Your task to perform on an android device: all mails in gmail Image 0: 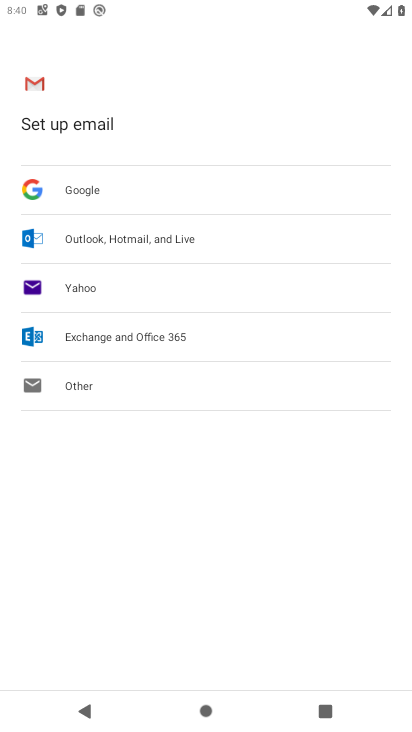
Step 0: press home button
Your task to perform on an android device: all mails in gmail Image 1: 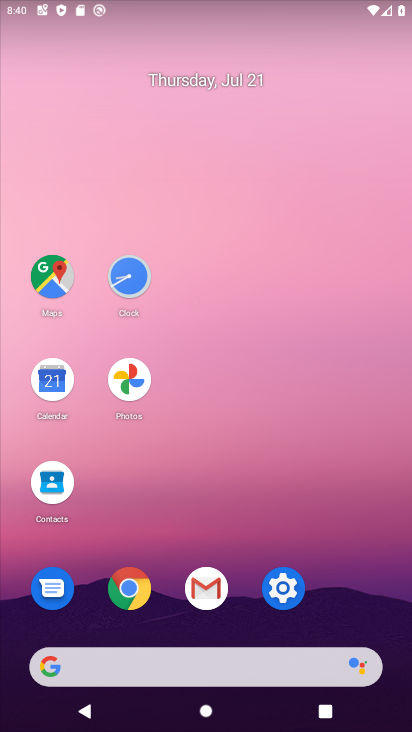
Step 1: click (204, 613)
Your task to perform on an android device: all mails in gmail Image 2: 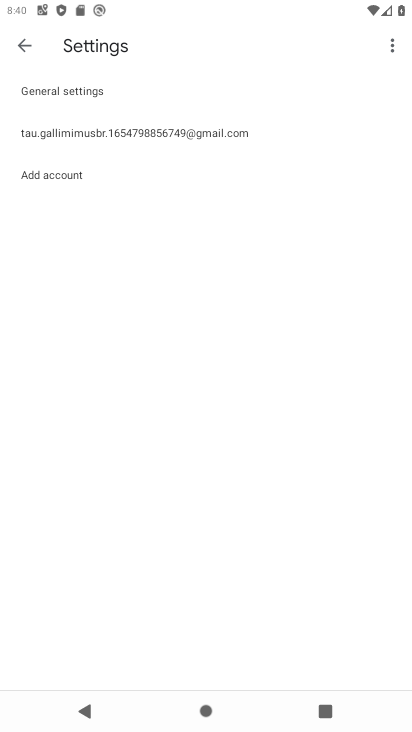
Step 2: click (16, 42)
Your task to perform on an android device: all mails in gmail Image 3: 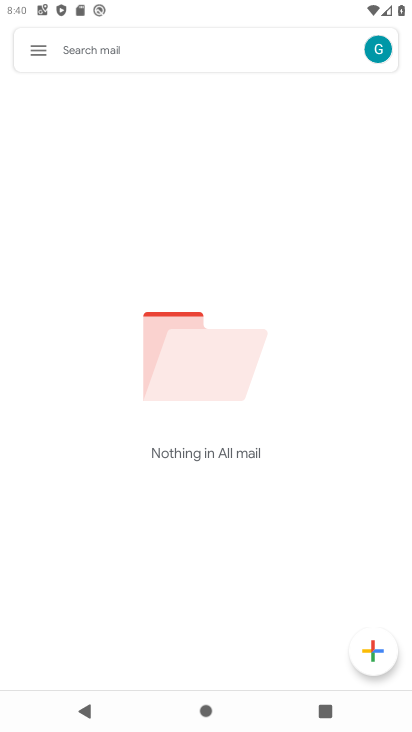
Step 3: click (38, 56)
Your task to perform on an android device: all mails in gmail Image 4: 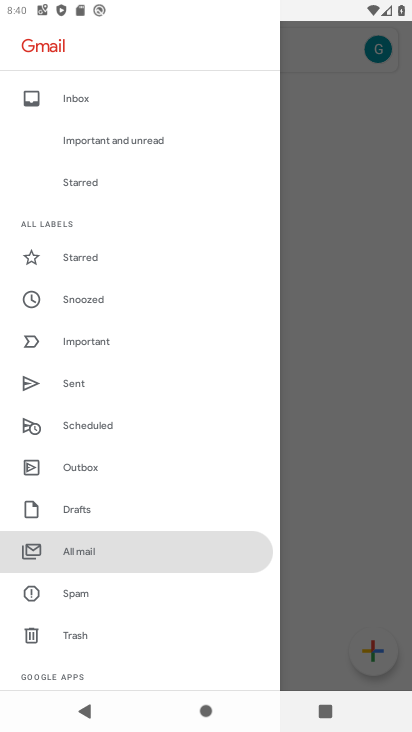
Step 4: click (133, 549)
Your task to perform on an android device: all mails in gmail Image 5: 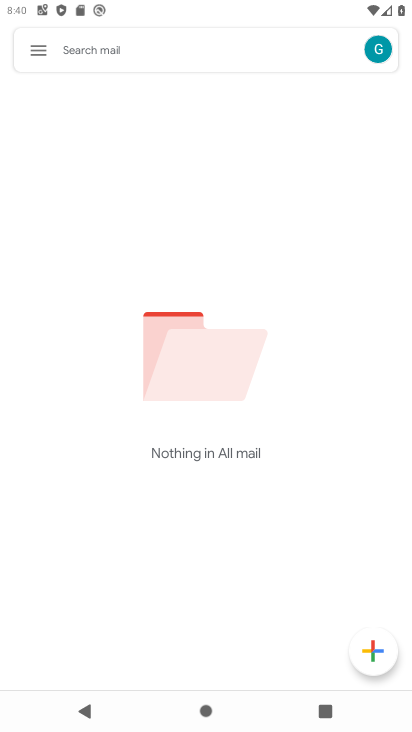
Step 5: task complete